Your task to perform on an android device: turn off notifications in google photos Image 0: 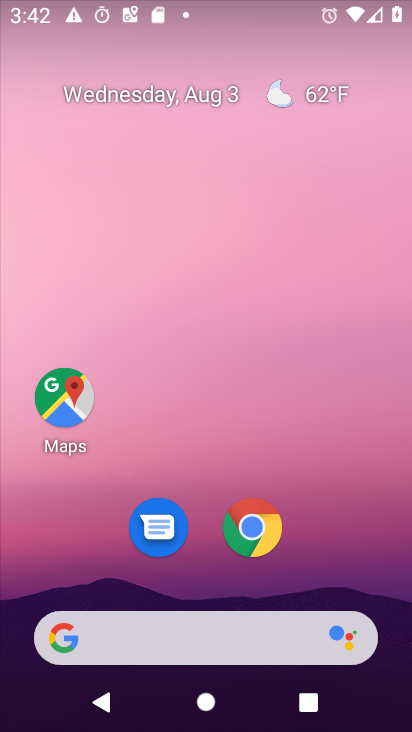
Step 0: drag from (358, 530) to (328, 135)
Your task to perform on an android device: turn off notifications in google photos Image 1: 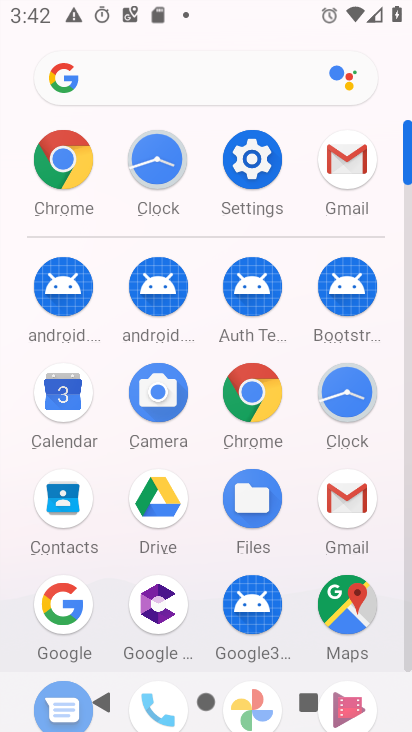
Step 1: drag from (200, 551) to (224, 319)
Your task to perform on an android device: turn off notifications in google photos Image 2: 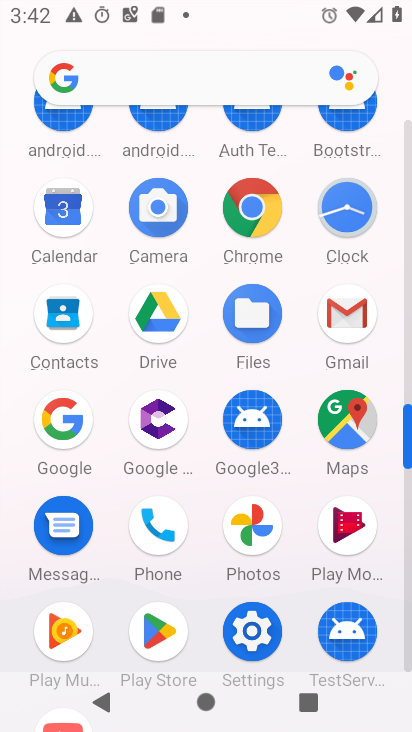
Step 2: click (265, 522)
Your task to perform on an android device: turn off notifications in google photos Image 3: 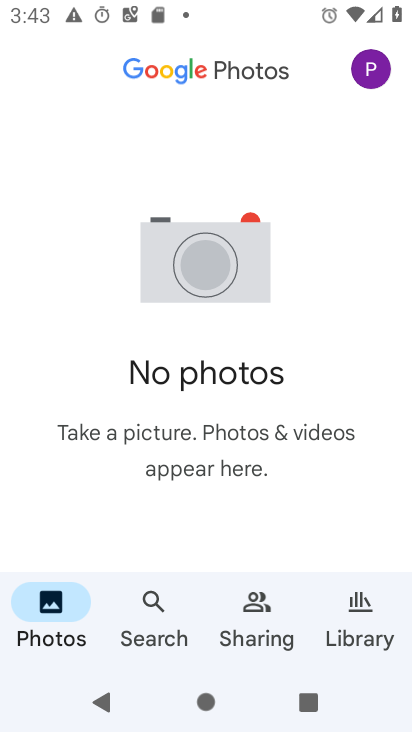
Step 3: click (378, 65)
Your task to perform on an android device: turn off notifications in google photos Image 4: 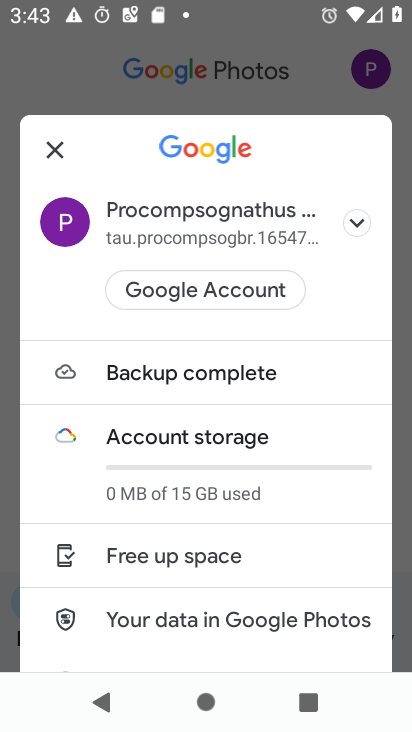
Step 4: drag from (287, 565) to (304, 294)
Your task to perform on an android device: turn off notifications in google photos Image 5: 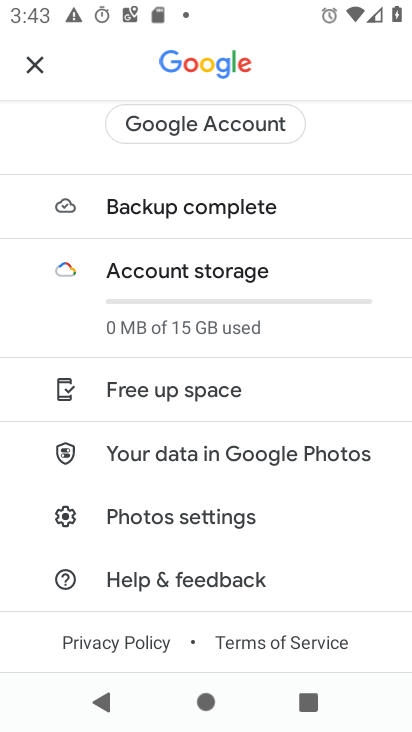
Step 5: click (221, 526)
Your task to perform on an android device: turn off notifications in google photos Image 6: 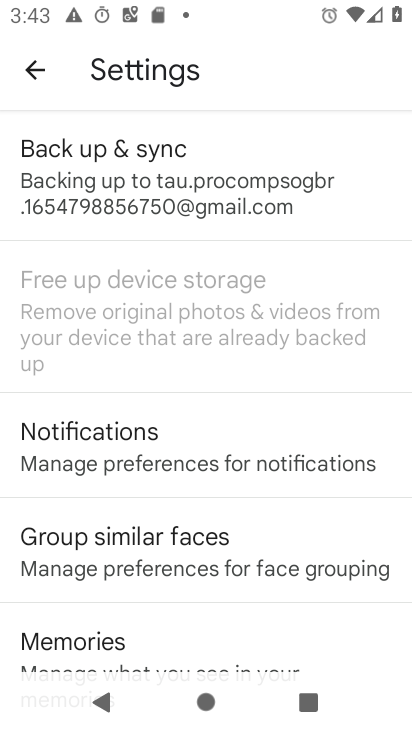
Step 6: click (245, 452)
Your task to perform on an android device: turn off notifications in google photos Image 7: 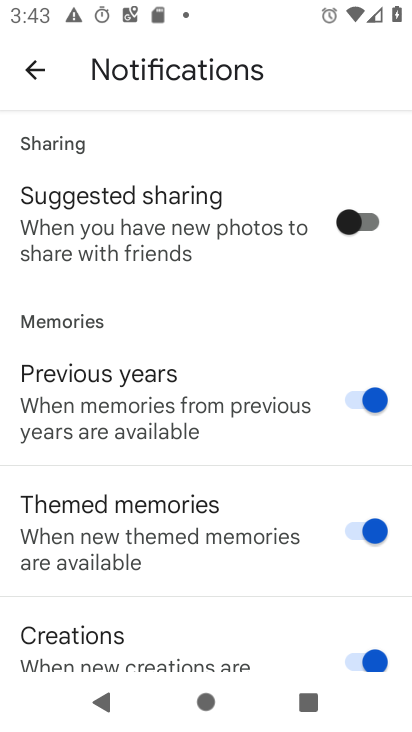
Step 7: drag from (178, 644) to (210, 190)
Your task to perform on an android device: turn off notifications in google photos Image 8: 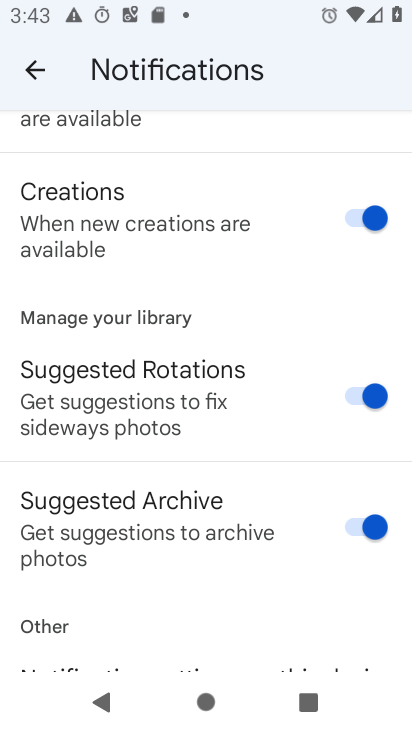
Step 8: drag from (230, 634) to (232, 306)
Your task to perform on an android device: turn off notifications in google photos Image 9: 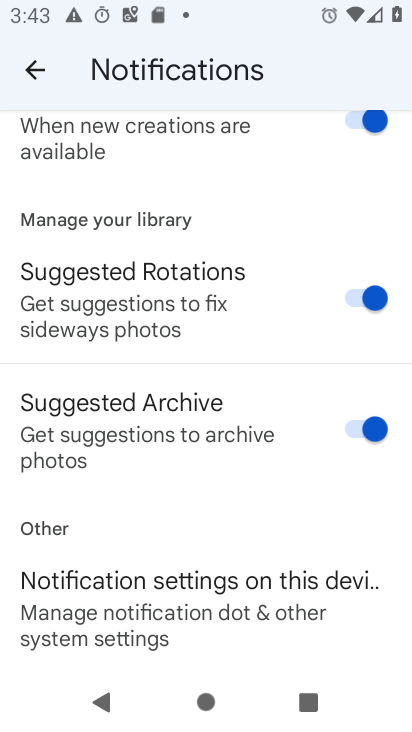
Step 9: click (209, 613)
Your task to perform on an android device: turn off notifications in google photos Image 10: 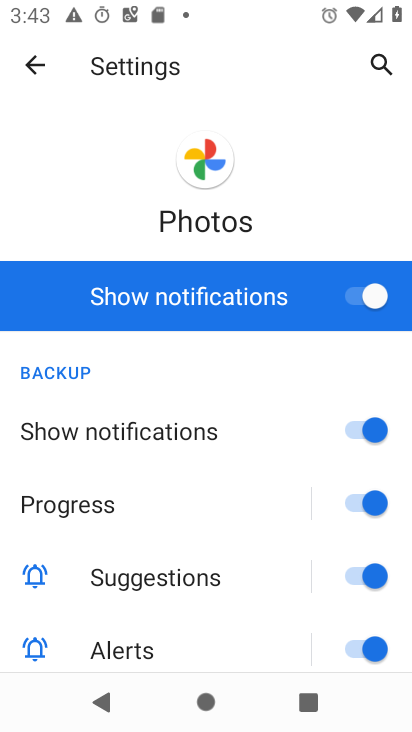
Step 10: click (375, 300)
Your task to perform on an android device: turn off notifications in google photos Image 11: 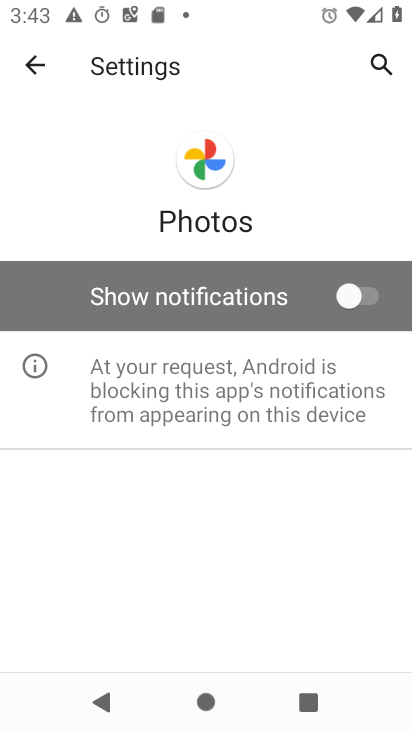
Step 11: task complete